Your task to perform on an android device: When is my next appointment? Image 0: 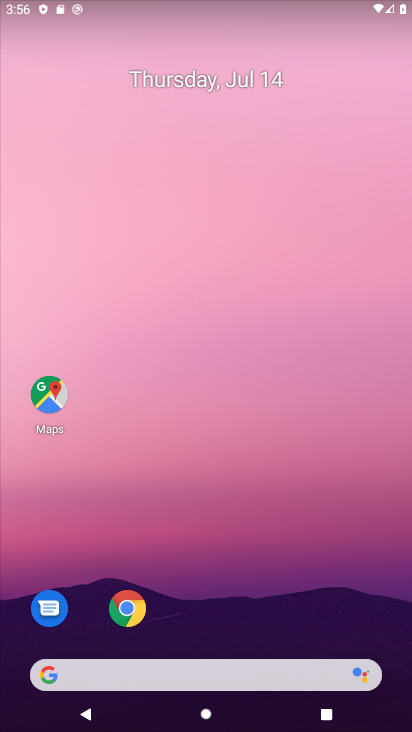
Step 0: drag from (186, 624) to (185, 89)
Your task to perform on an android device: When is my next appointment? Image 1: 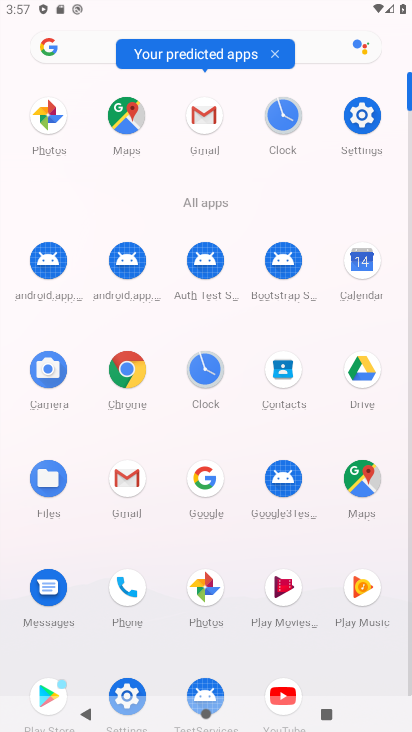
Step 1: click (360, 119)
Your task to perform on an android device: When is my next appointment? Image 2: 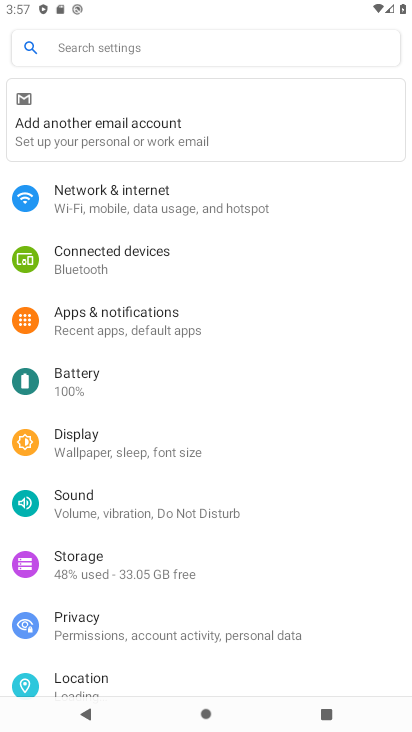
Step 2: press home button
Your task to perform on an android device: When is my next appointment? Image 3: 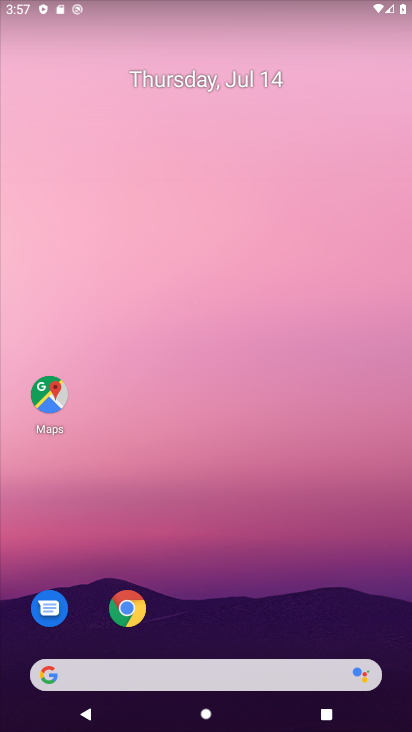
Step 3: drag from (196, 637) to (196, 204)
Your task to perform on an android device: When is my next appointment? Image 4: 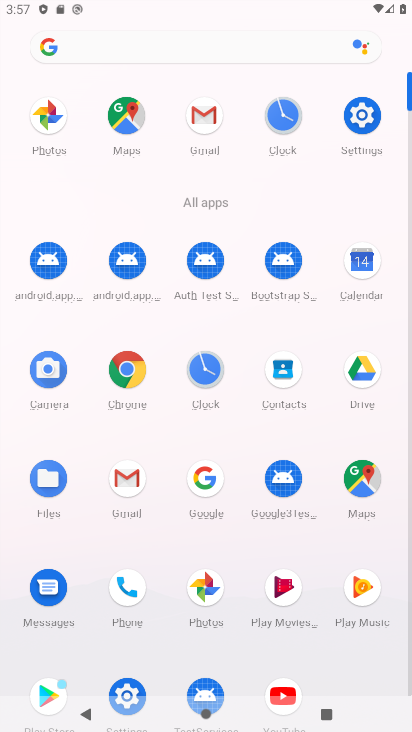
Step 4: click (357, 277)
Your task to perform on an android device: When is my next appointment? Image 5: 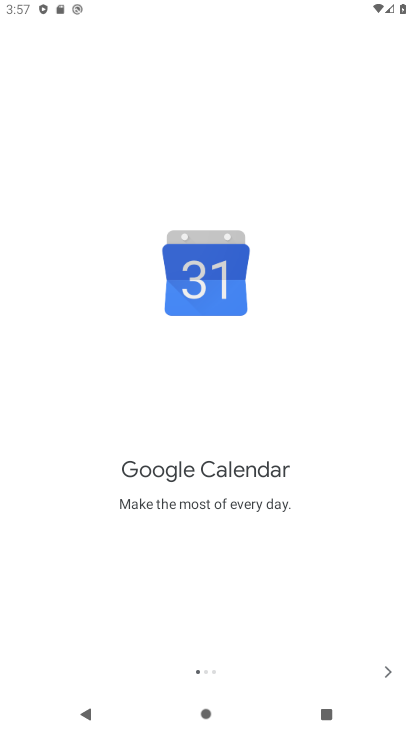
Step 5: click (394, 667)
Your task to perform on an android device: When is my next appointment? Image 6: 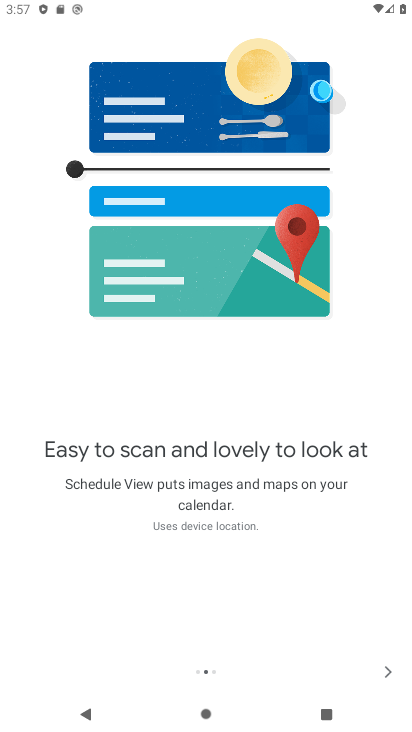
Step 6: click (394, 667)
Your task to perform on an android device: When is my next appointment? Image 7: 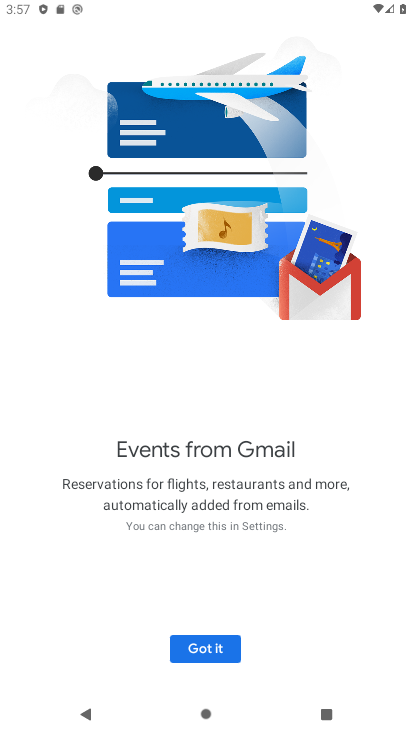
Step 7: click (236, 649)
Your task to perform on an android device: When is my next appointment? Image 8: 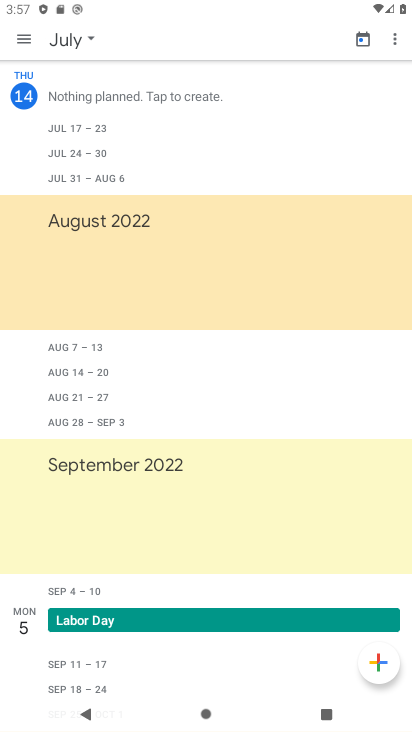
Step 8: click (98, 40)
Your task to perform on an android device: When is my next appointment? Image 9: 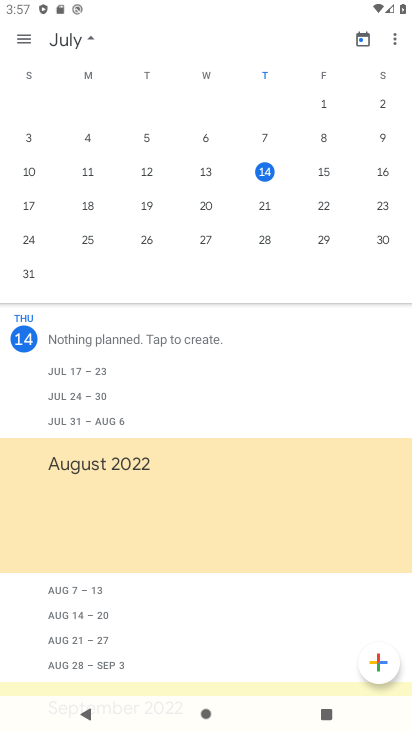
Step 9: click (98, 40)
Your task to perform on an android device: When is my next appointment? Image 10: 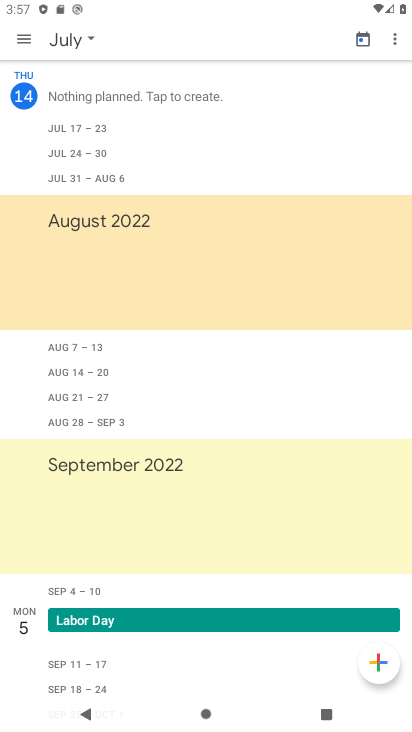
Step 10: task complete